Your task to perform on an android device: see tabs open on other devices in the chrome app Image 0: 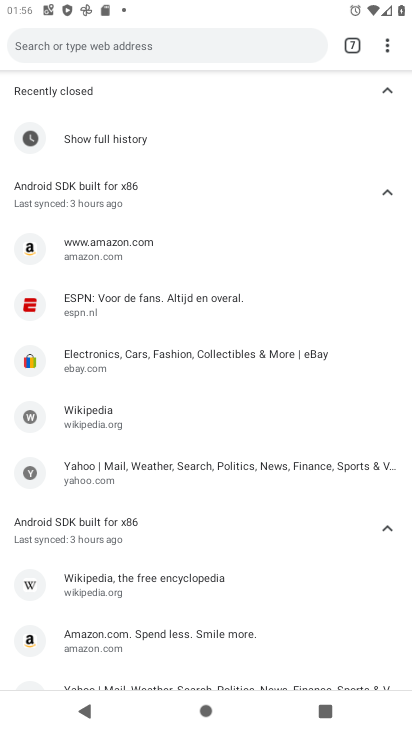
Step 0: click (388, 40)
Your task to perform on an android device: see tabs open on other devices in the chrome app Image 1: 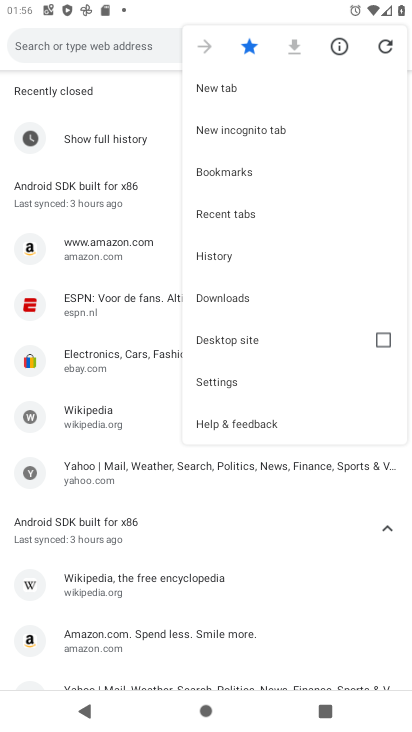
Step 1: click (243, 228)
Your task to perform on an android device: see tabs open on other devices in the chrome app Image 2: 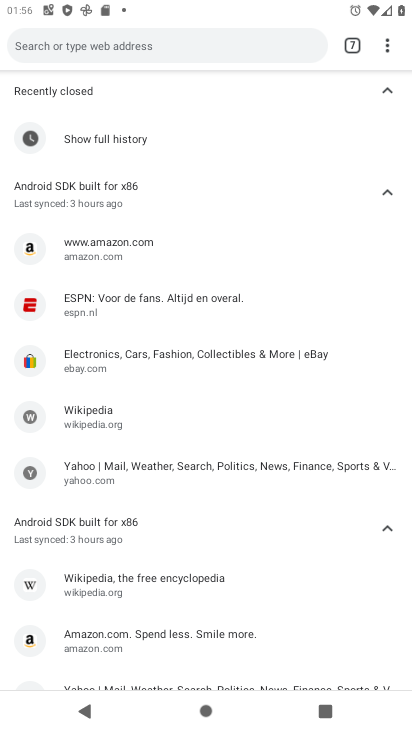
Step 2: task complete